Your task to perform on an android device: turn pop-ups on in chrome Image 0: 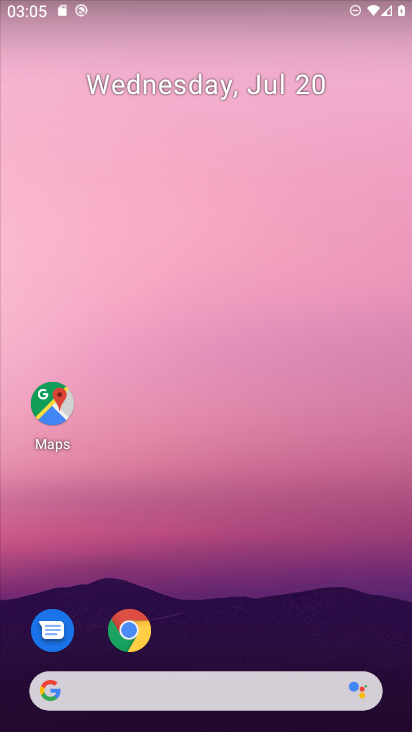
Step 0: drag from (355, 625) to (372, 101)
Your task to perform on an android device: turn pop-ups on in chrome Image 1: 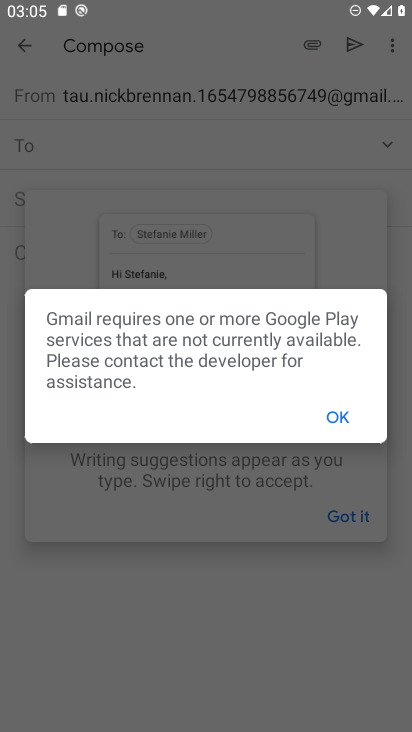
Step 1: press home button
Your task to perform on an android device: turn pop-ups on in chrome Image 2: 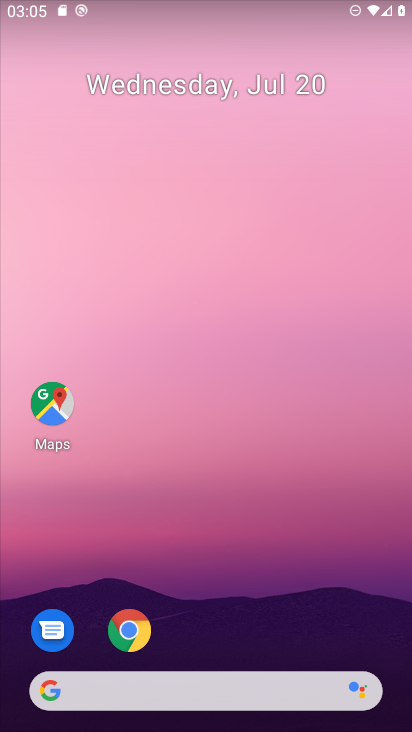
Step 2: drag from (332, 599) to (333, 119)
Your task to perform on an android device: turn pop-ups on in chrome Image 3: 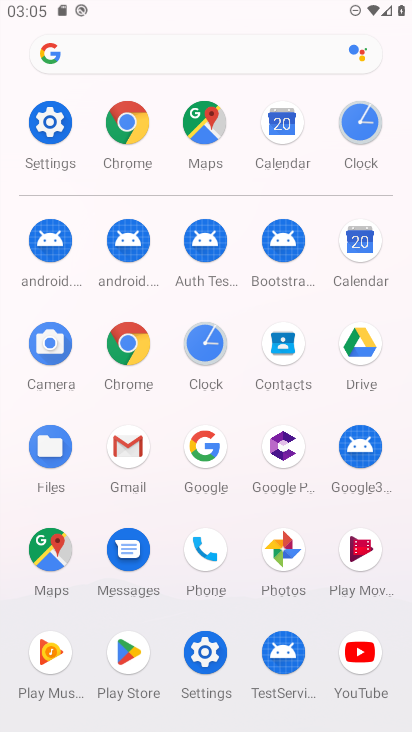
Step 3: click (130, 343)
Your task to perform on an android device: turn pop-ups on in chrome Image 4: 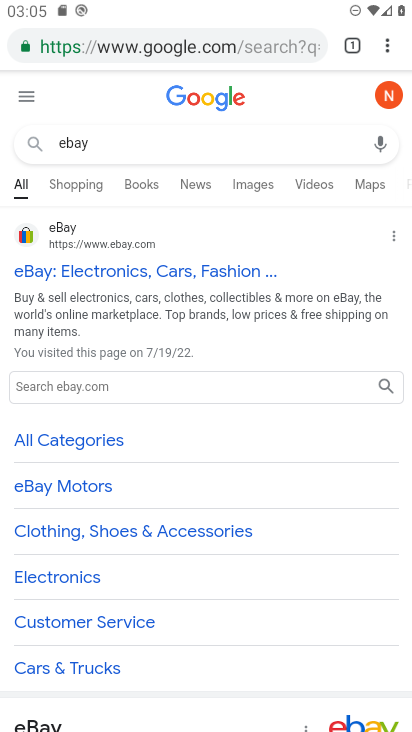
Step 4: click (386, 47)
Your task to perform on an android device: turn pop-ups on in chrome Image 5: 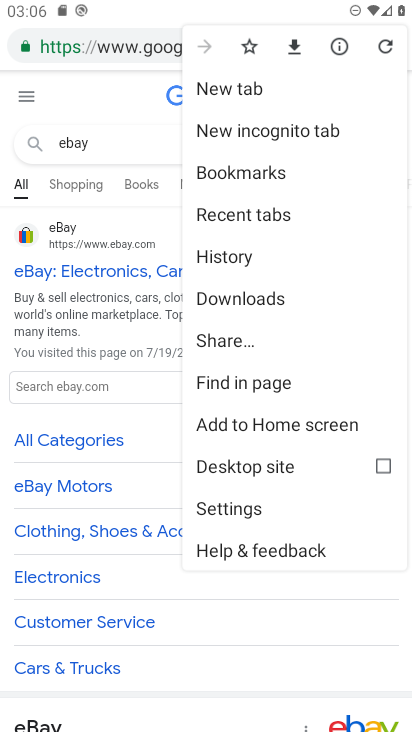
Step 5: click (266, 510)
Your task to perform on an android device: turn pop-ups on in chrome Image 6: 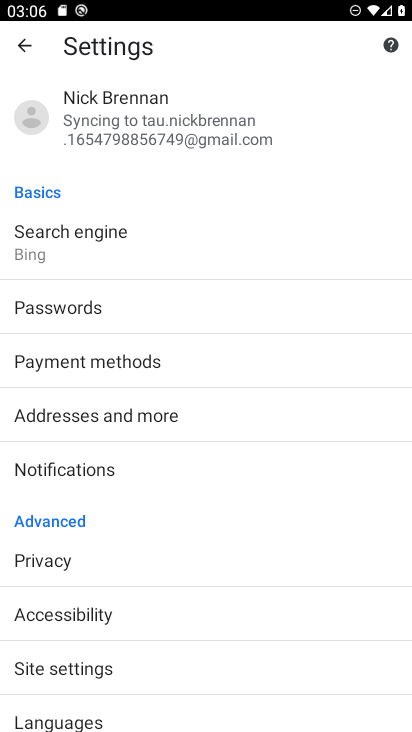
Step 6: drag from (269, 561) to (275, 430)
Your task to perform on an android device: turn pop-ups on in chrome Image 7: 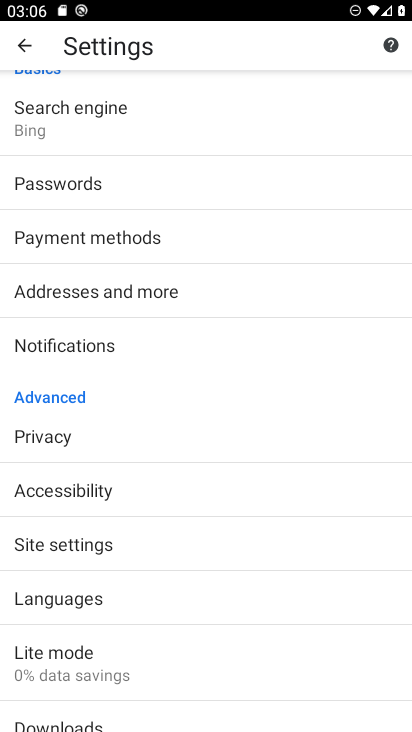
Step 7: drag from (272, 530) to (282, 410)
Your task to perform on an android device: turn pop-ups on in chrome Image 8: 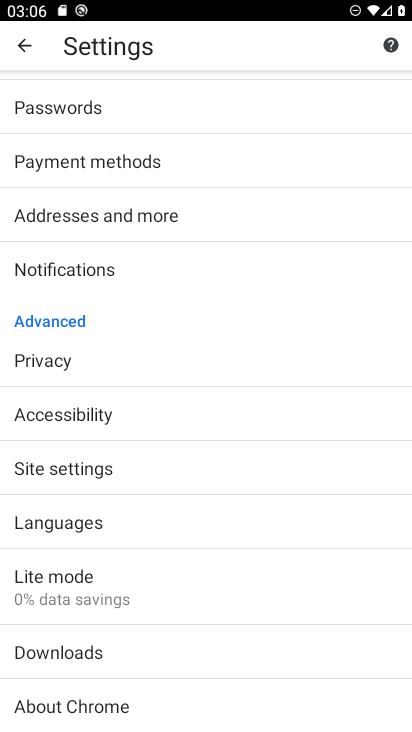
Step 8: click (270, 465)
Your task to perform on an android device: turn pop-ups on in chrome Image 9: 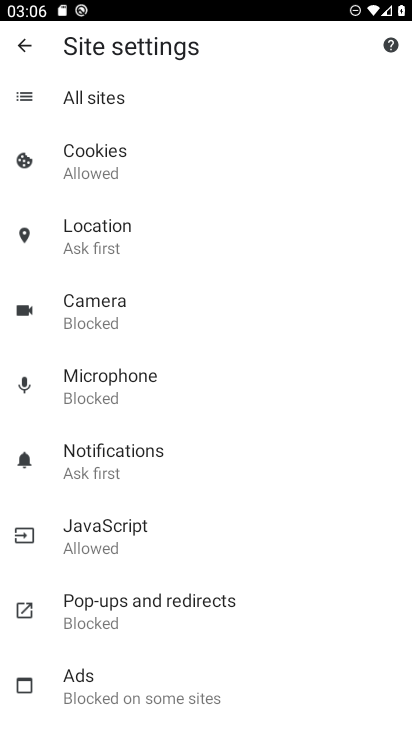
Step 9: drag from (296, 493) to (297, 394)
Your task to perform on an android device: turn pop-ups on in chrome Image 10: 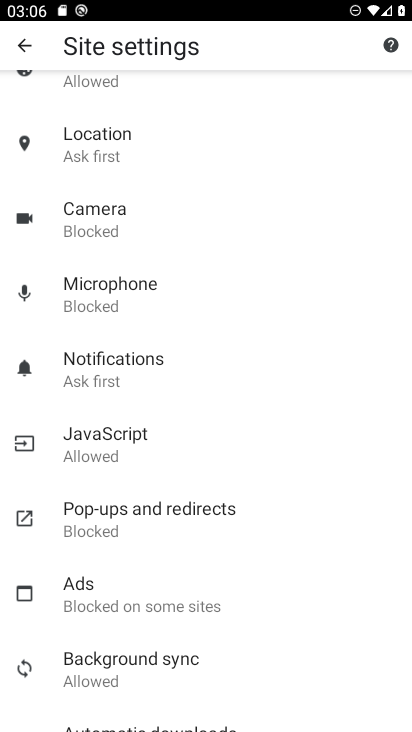
Step 10: drag from (305, 500) to (304, 411)
Your task to perform on an android device: turn pop-ups on in chrome Image 11: 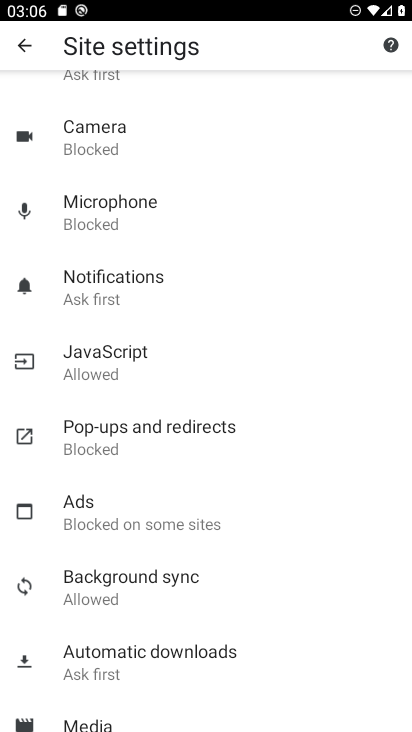
Step 11: drag from (303, 514) to (315, 377)
Your task to perform on an android device: turn pop-ups on in chrome Image 12: 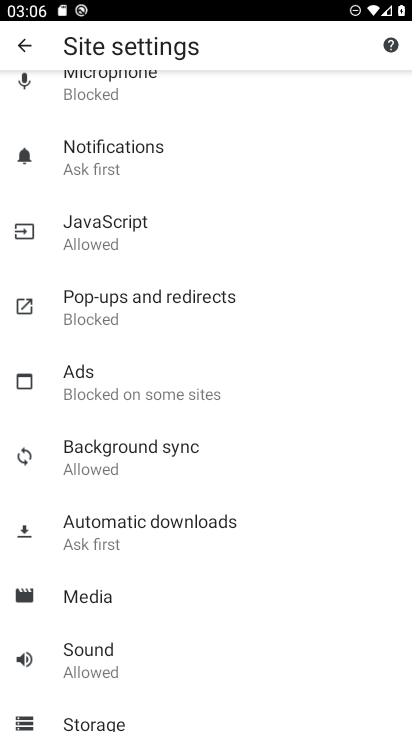
Step 12: click (274, 317)
Your task to perform on an android device: turn pop-ups on in chrome Image 13: 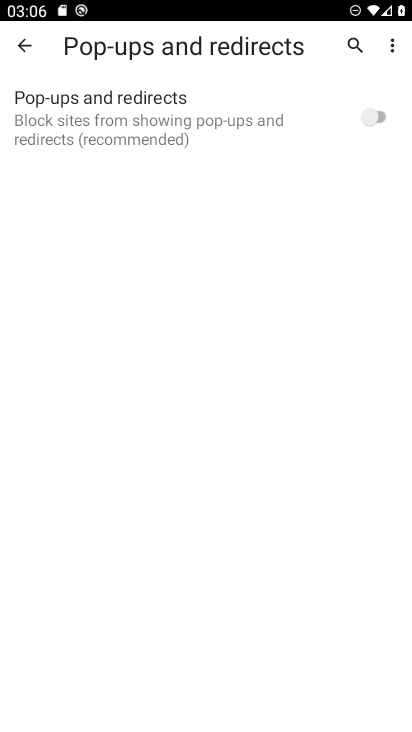
Step 13: click (375, 113)
Your task to perform on an android device: turn pop-ups on in chrome Image 14: 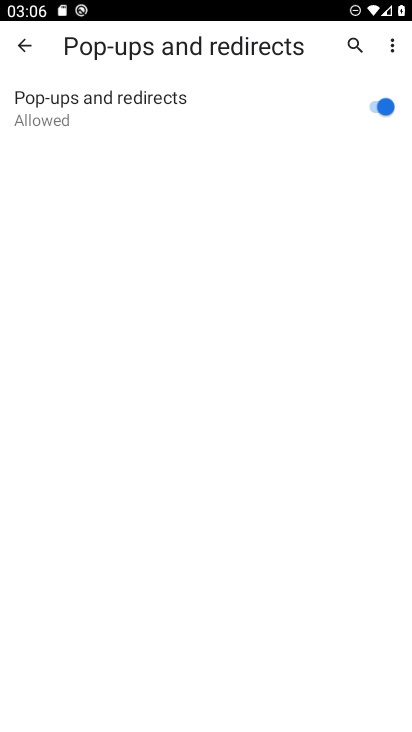
Step 14: task complete